Your task to perform on an android device: clear history in the chrome app Image 0: 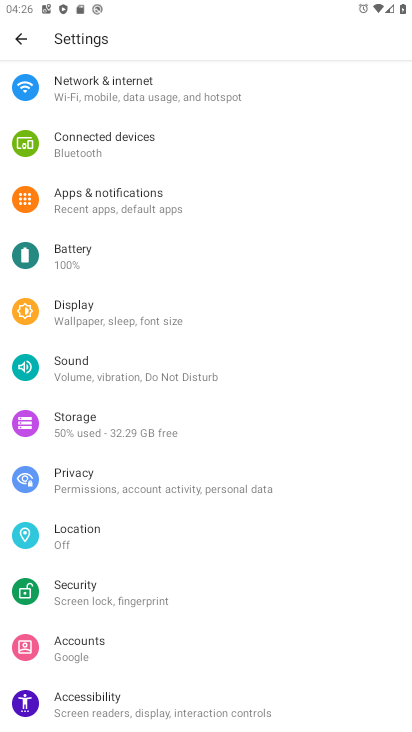
Step 0: press home button
Your task to perform on an android device: clear history in the chrome app Image 1: 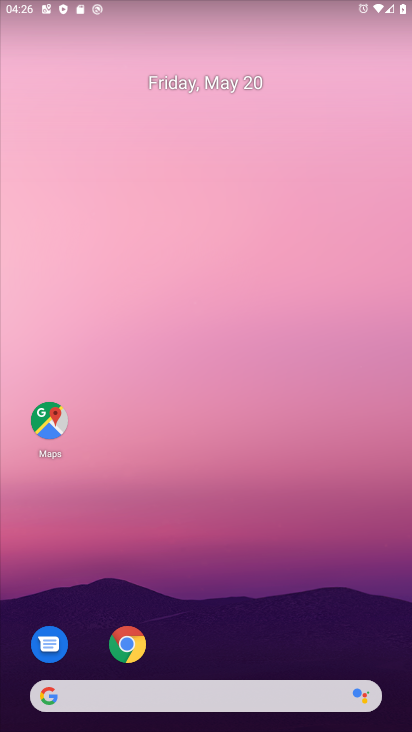
Step 1: click (126, 646)
Your task to perform on an android device: clear history in the chrome app Image 2: 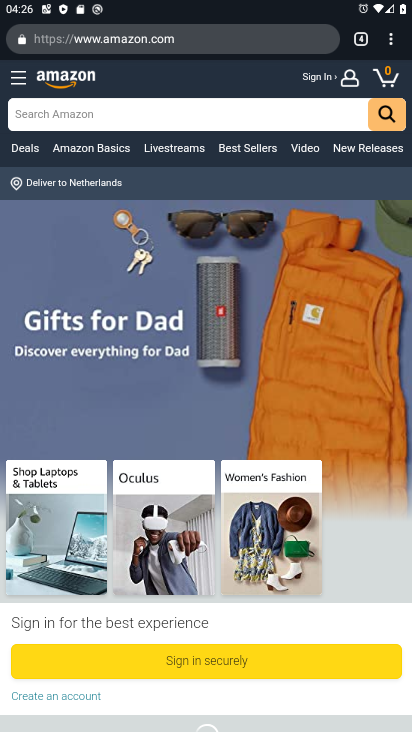
Step 2: click (391, 45)
Your task to perform on an android device: clear history in the chrome app Image 3: 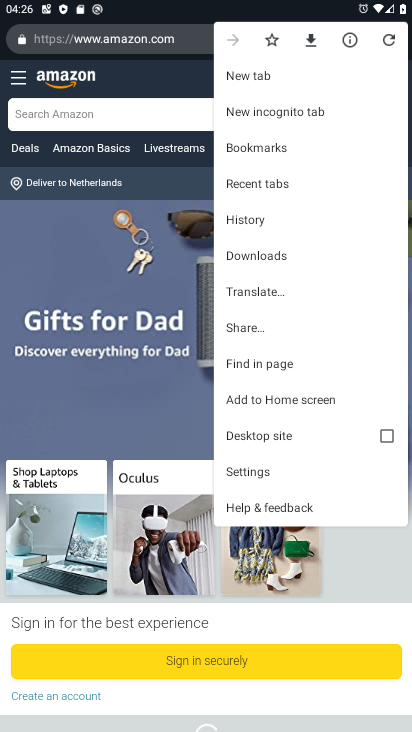
Step 3: click (272, 465)
Your task to perform on an android device: clear history in the chrome app Image 4: 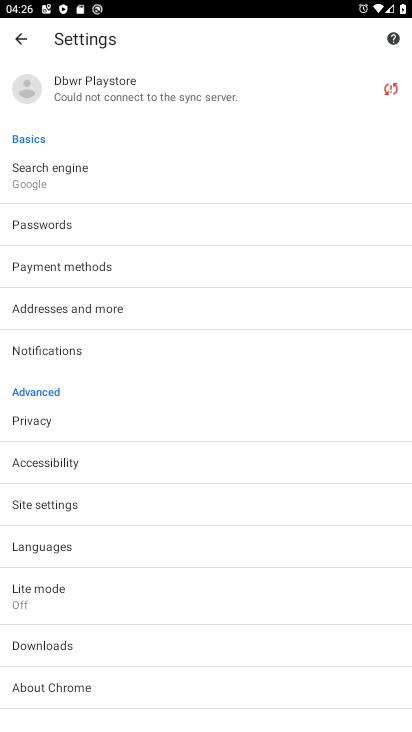
Step 4: task complete